Your task to perform on an android device: Google the capital of Colombia Image 0: 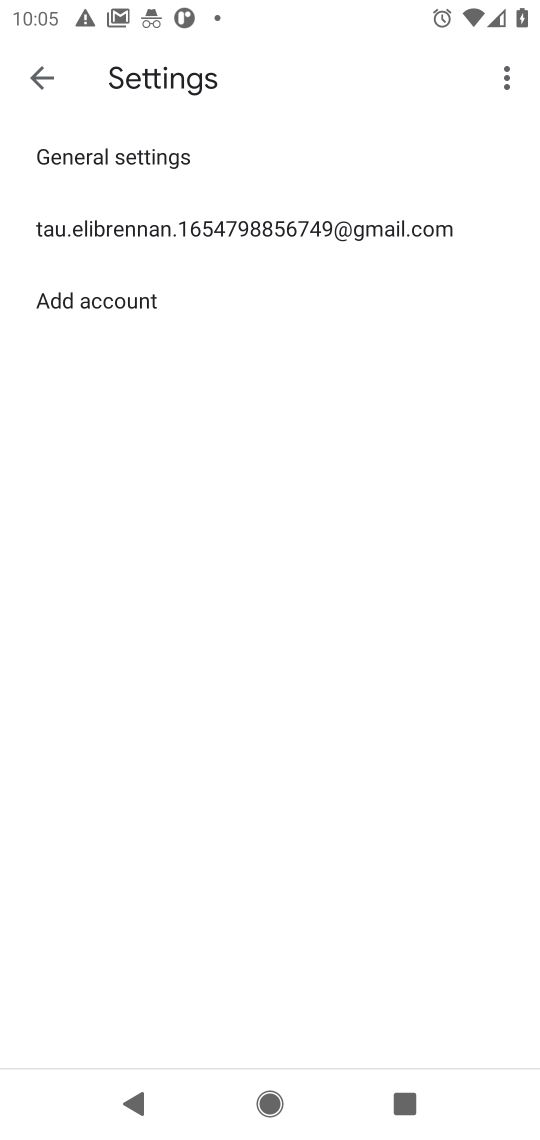
Step 0: press home button
Your task to perform on an android device: Google the capital of Colombia Image 1: 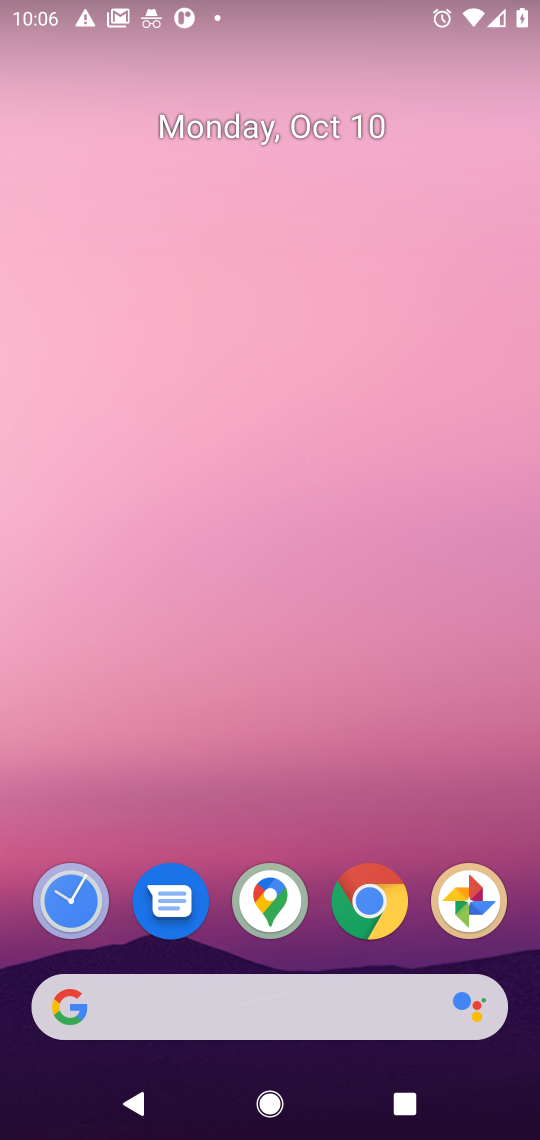
Step 1: click (187, 1024)
Your task to perform on an android device: Google the capital of Colombia Image 2: 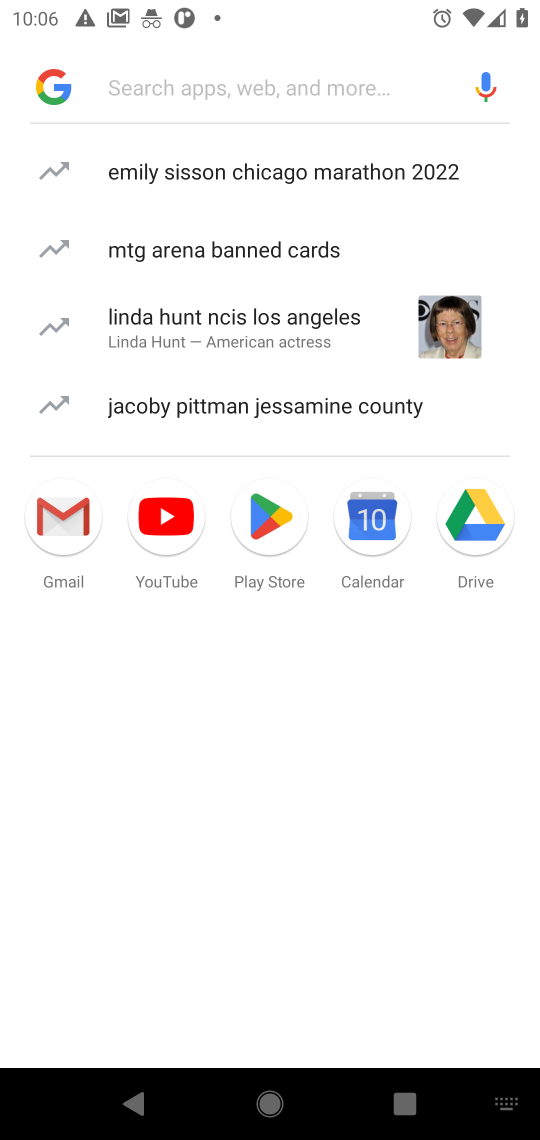
Step 2: type "Google the capital of Colombia"
Your task to perform on an android device: Google the capital of Colombia Image 3: 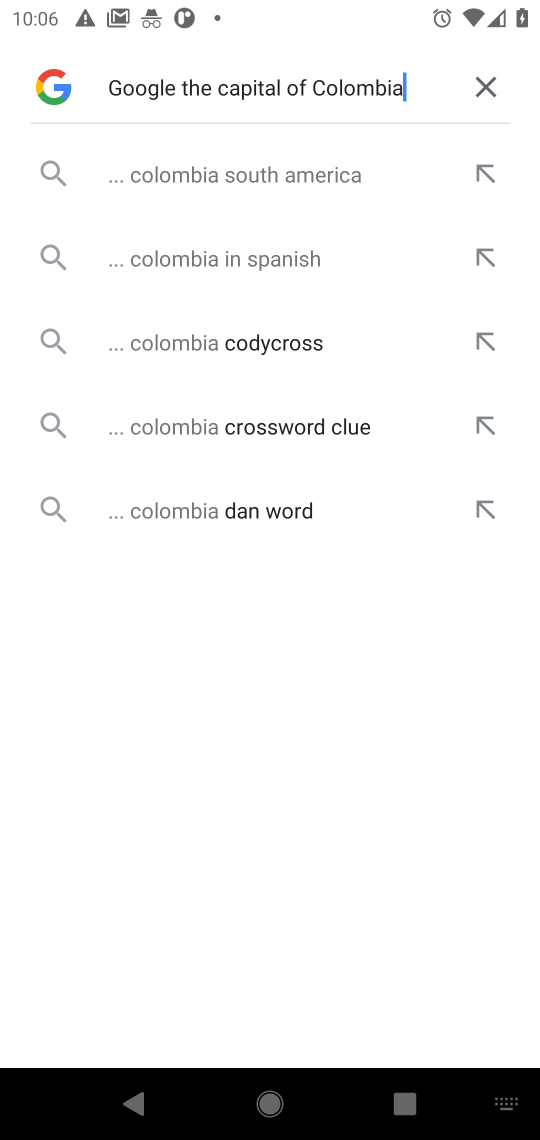
Step 3: press enter
Your task to perform on an android device: Google the capital of Colombia Image 4: 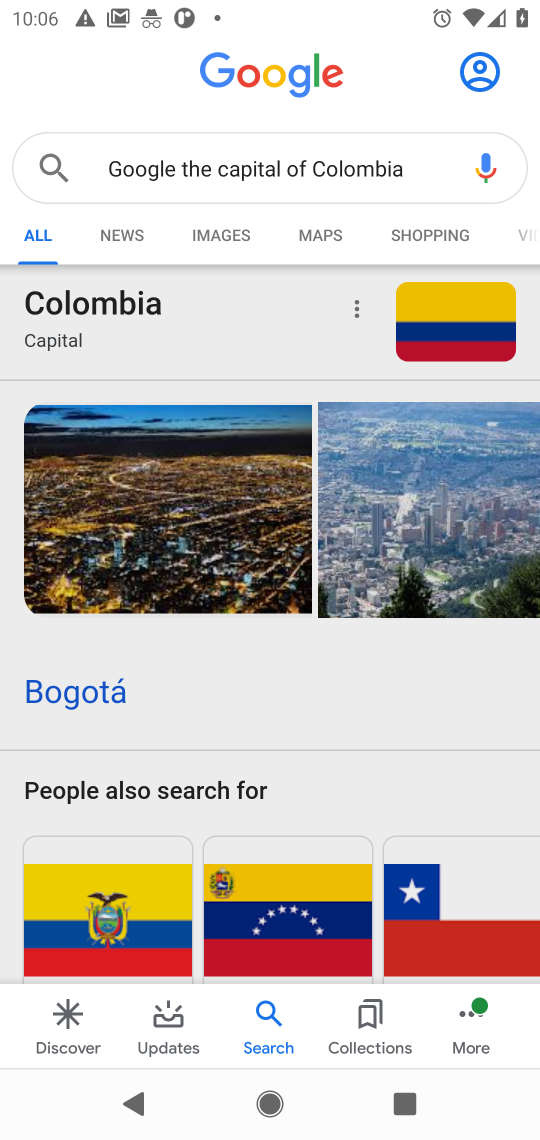
Step 4: task complete